Your task to perform on an android device: Go to Google maps Image 0: 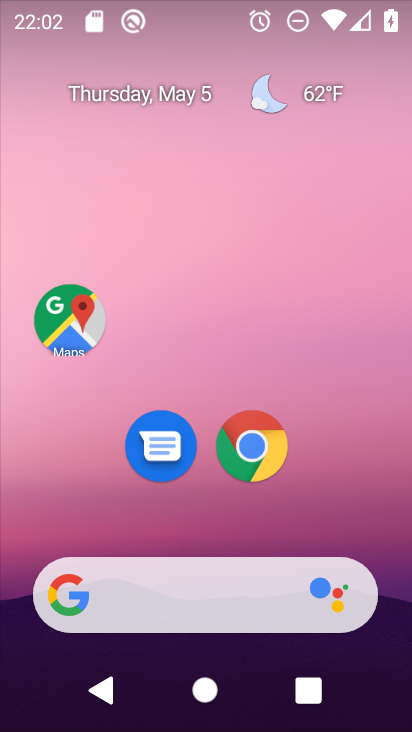
Step 0: drag from (251, 647) to (273, 180)
Your task to perform on an android device: Go to Google maps Image 1: 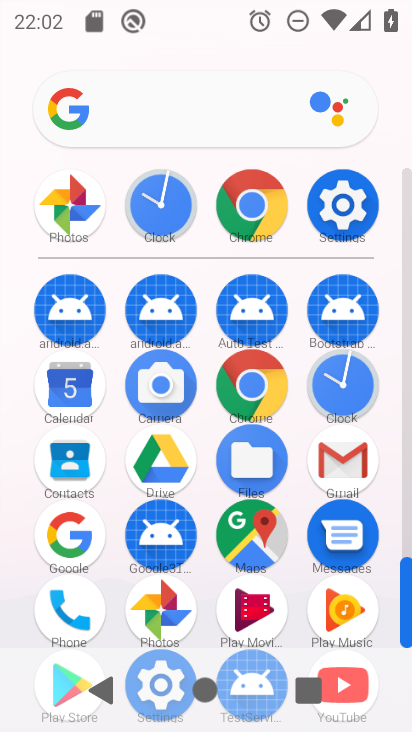
Step 1: click (229, 531)
Your task to perform on an android device: Go to Google maps Image 2: 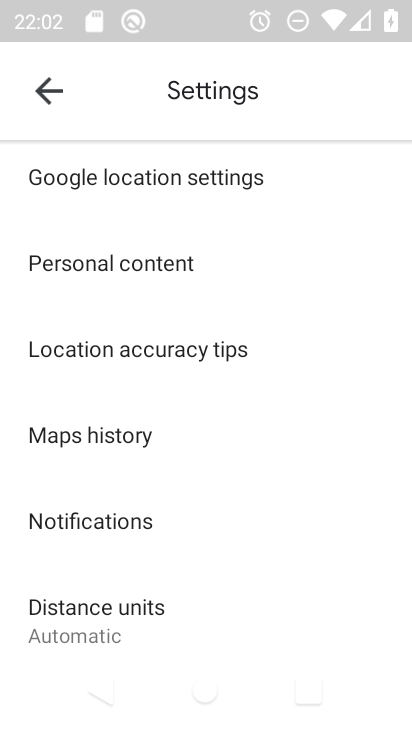
Step 2: click (34, 88)
Your task to perform on an android device: Go to Google maps Image 3: 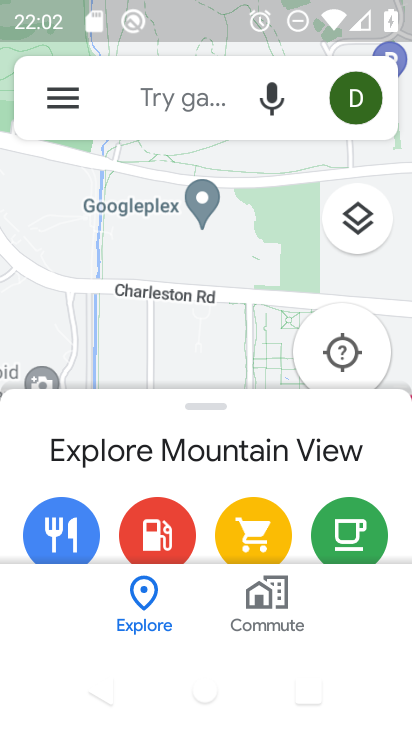
Step 3: click (210, 300)
Your task to perform on an android device: Go to Google maps Image 4: 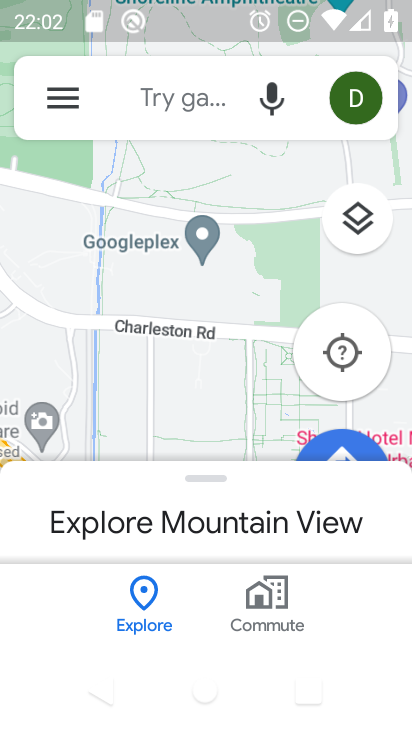
Step 4: task complete